Your task to perform on an android device: Go to CNN.com Image 0: 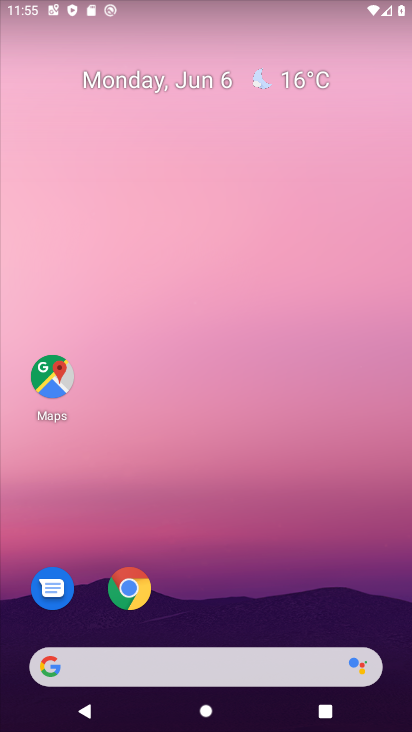
Step 0: drag from (231, 721) to (363, 161)
Your task to perform on an android device: Go to CNN.com Image 1: 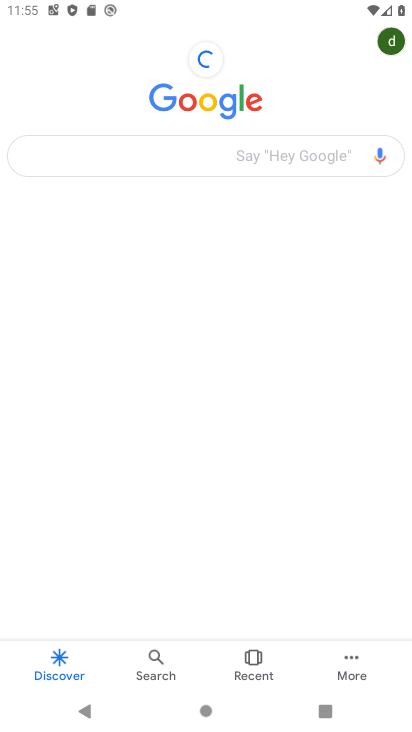
Step 1: click (203, 154)
Your task to perform on an android device: Go to CNN.com Image 2: 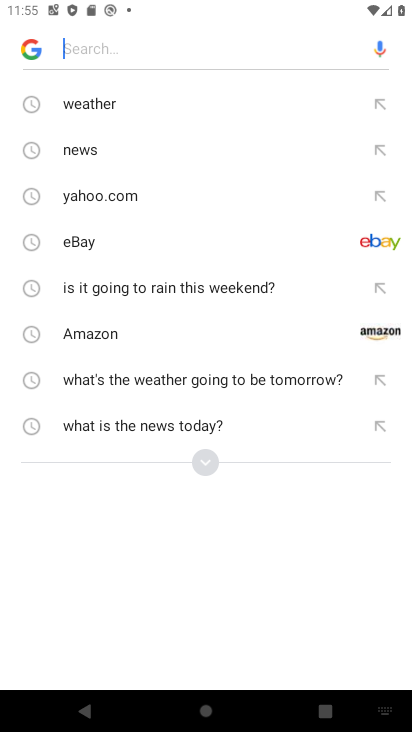
Step 2: type "cnn.com"
Your task to perform on an android device: Go to CNN.com Image 3: 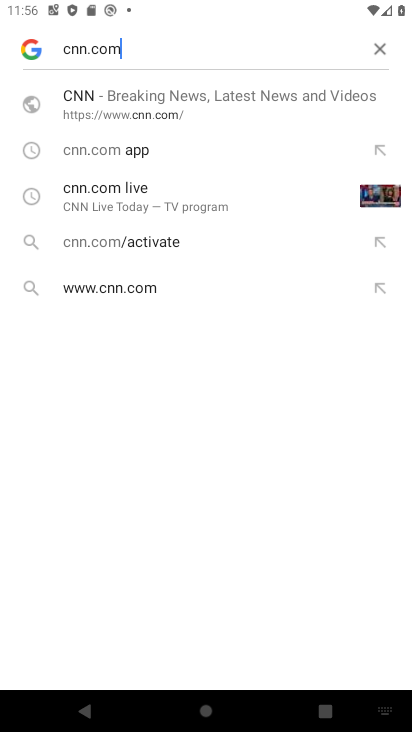
Step 3: click (260, 112)
Your task to perform on an android device: Go to CNN.com Image 4: 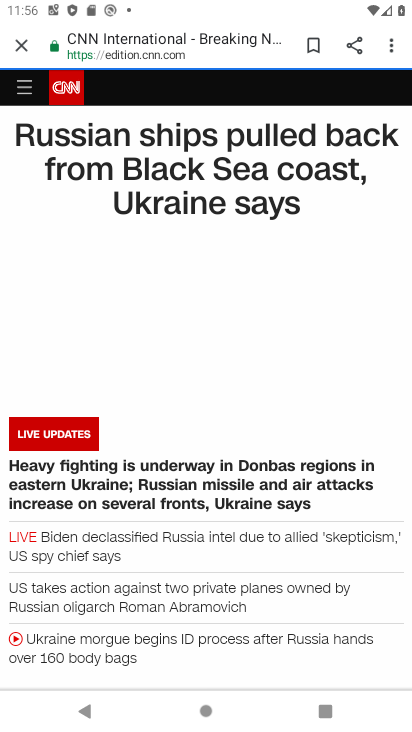
Step 4: task complete